Your task to perform on an android device: Play the last video I watched on Youtube Image 0: 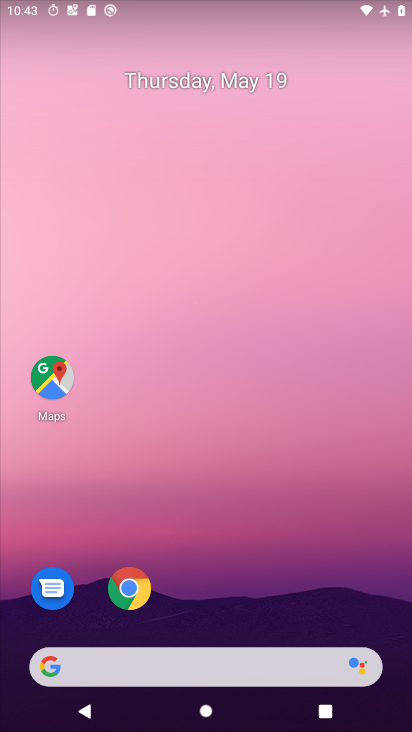
Step 0: press home button
Your task to perform on an android device: Play the last video I watched on Youtube Image 1: 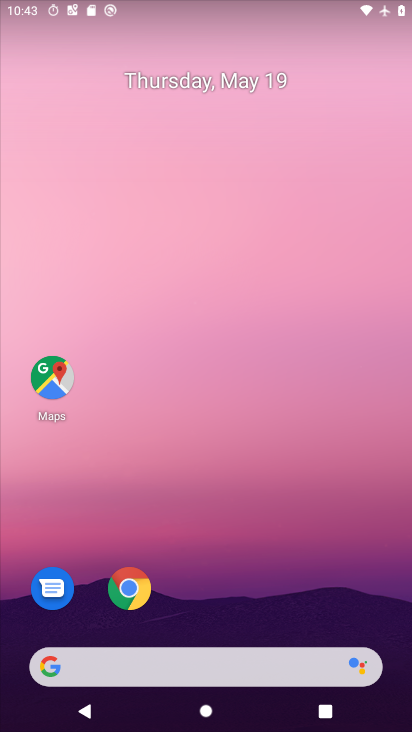
Step 1: drag from (162, 660) to (285, 270)
Your task to perform on an android device: Play the last video I watched on Youtube Image 2: 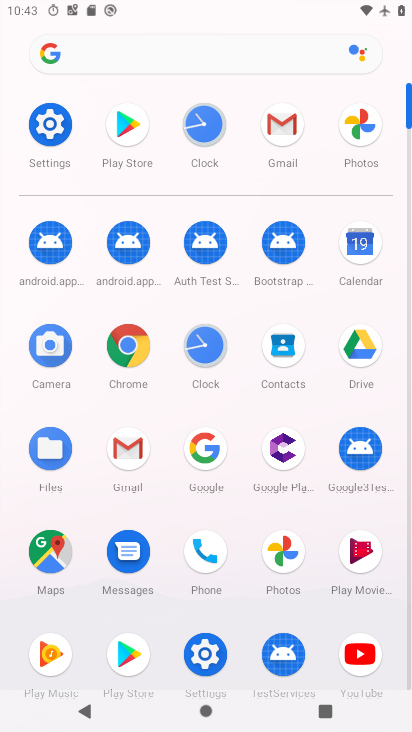
Step 2: click (357, 657)
Your task to perform on an android device: Play the last video I watched on Youtube Image 3: 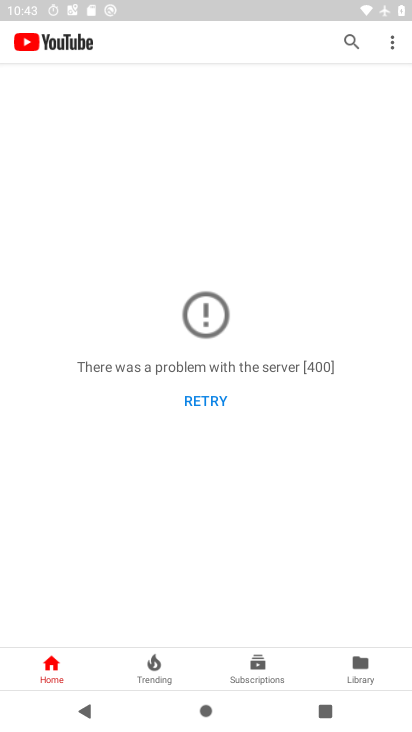
Step 3: click (209, 394)
Your task to perform on an android device: Play the last video I watched on Youtube Image 4: 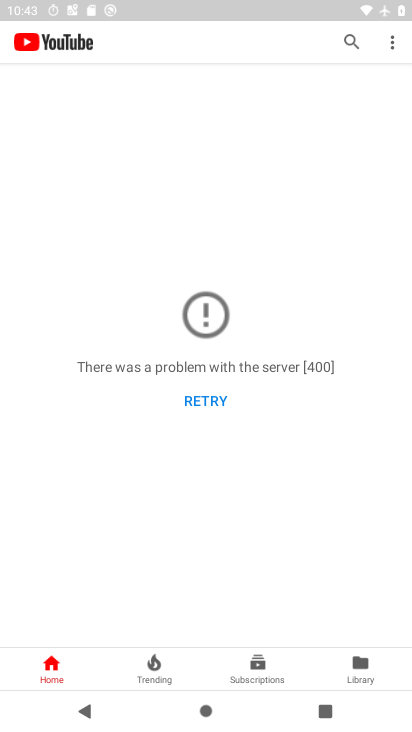
Step 4: click (204, 400)
Your task to perform on an android device: Play the last video I watched on Youtube Image 5: 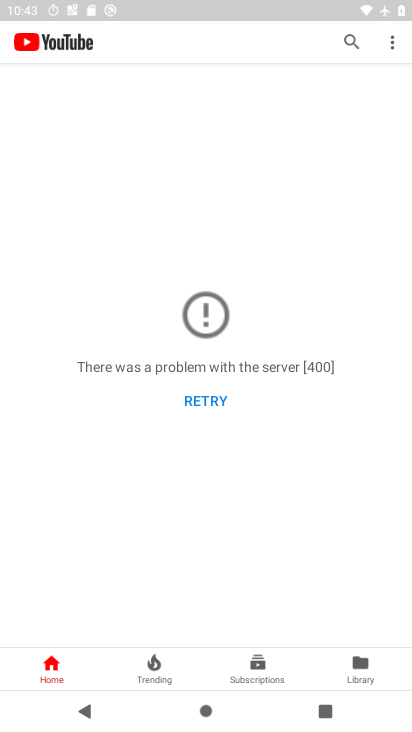
Step 5: click (359, 663)
Your task to perform on an android device: Play the last video I watched on Youtube Image 6: 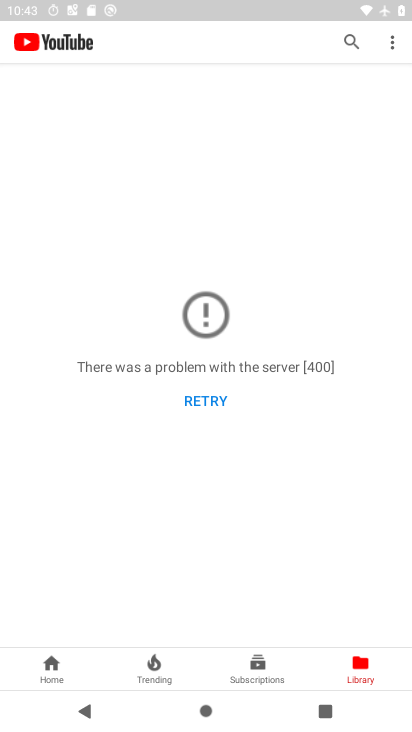
Step 6: click (209, 397)
Your task to perform on an android device: Play the last video I watched on Youtube Image 7: 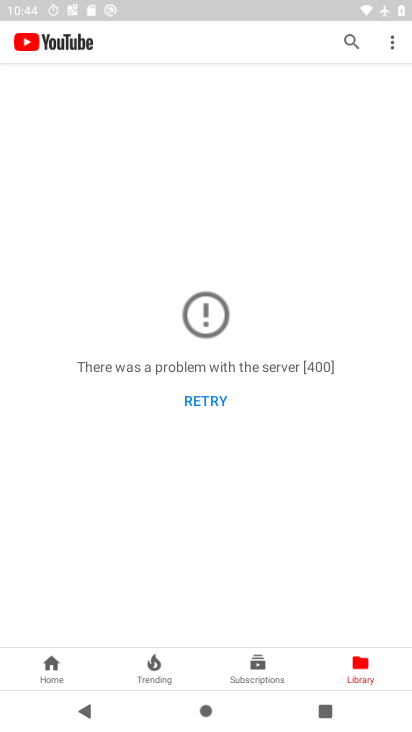
Step 7: task complete